Your task to perform on an android device: see creations saved in the google photos Image 0: 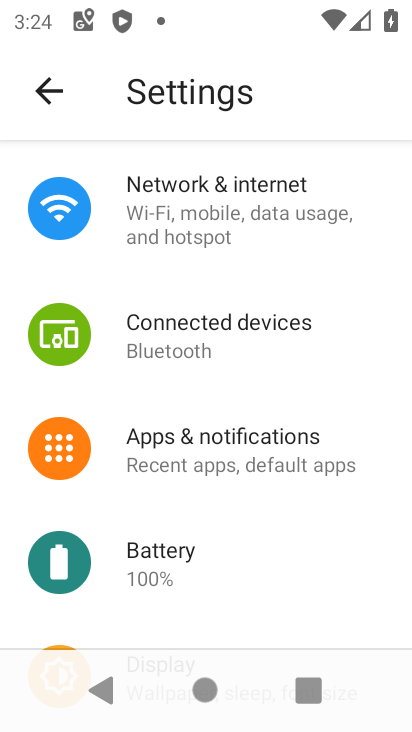
Step 0: press home button
Your task to perform on an android device: see creations saved in the google photos Image 1: 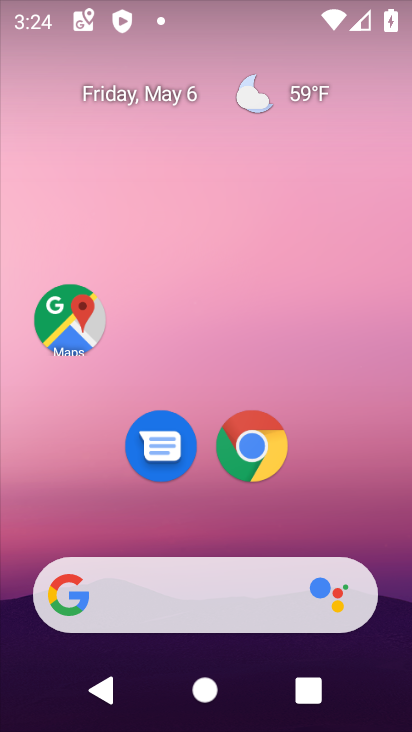
Step 1: drag from (313, 507) to (303, 58)
Your task to perform on an android device: see creations saved in the google photos Image 2: 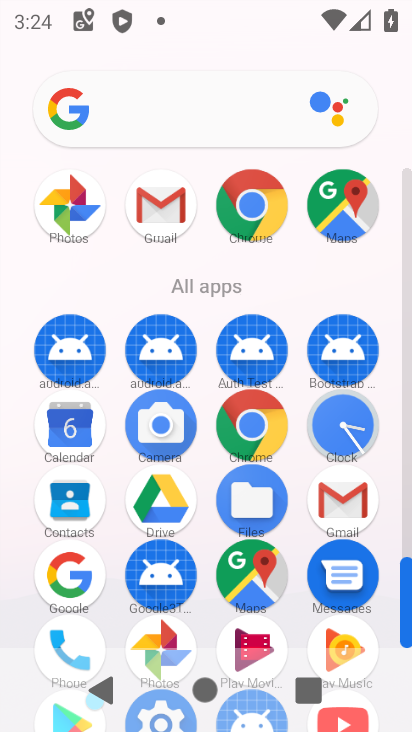
Step 2: drag from (208, 526) to (215, 223)
Your task to perform on an android device: see creations saved in the google photos Image 3: 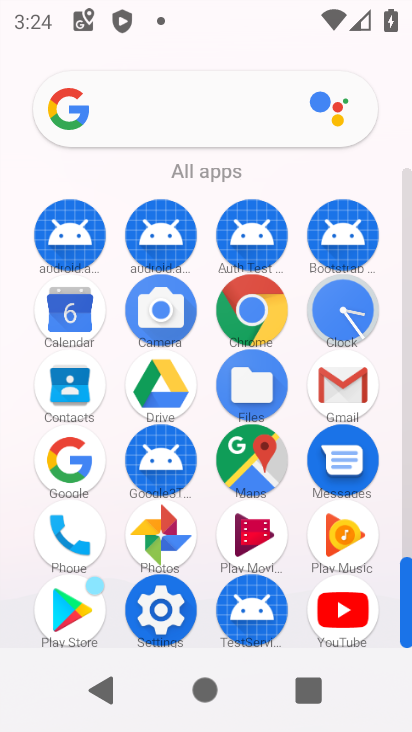
Step 3: click (163, 532)
Your task to perform on an android device: see creations saved in the google photos Image 4: 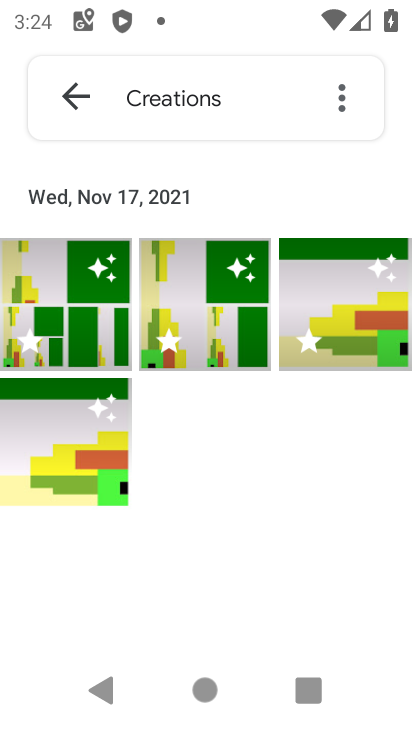
Step 4: click (92, 99)
Your task to perform on an android device: see creations saved in the google photos Image 5: 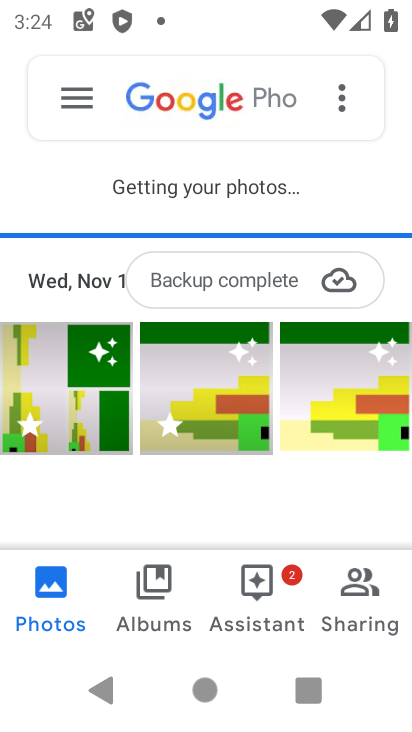
Step 5: click (82, 102)
Your task to perform on an android device: see creations saved in the google photos Image 6: 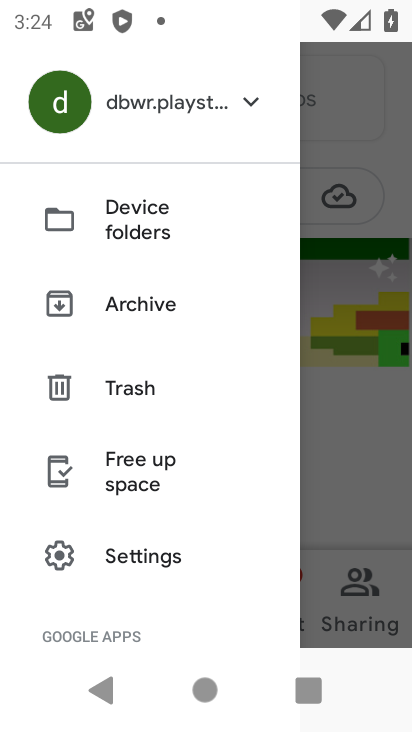
Step 6: click (393, 443)
Your task to perform on an android device: see creations saved in the google photos Image 7: 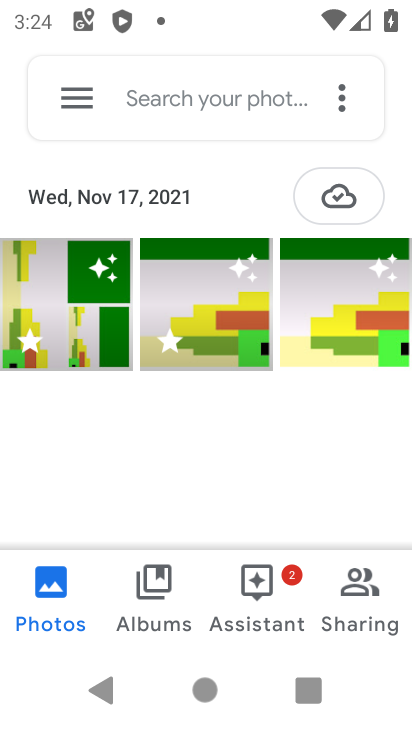
Step 7: click (263, 109)
Your task to perform on an android device: see creations saved in the google photos Image 8: 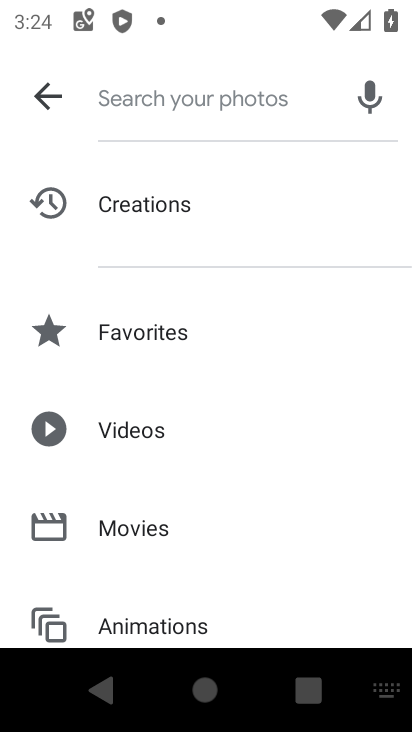
Step 8: click (165, 199)
Your task to perform on an android device: see creations saved in the google photos Image 9: 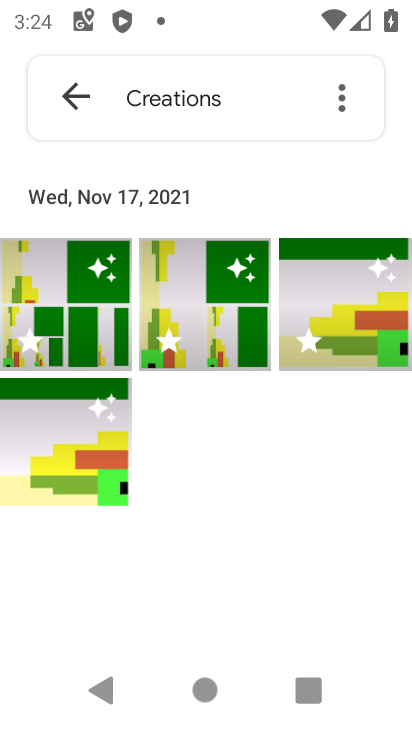
Step 9: task complete